Your task to perform on an android device: Open Google Chrome and click the shortcut for Amazon.com Image 0: 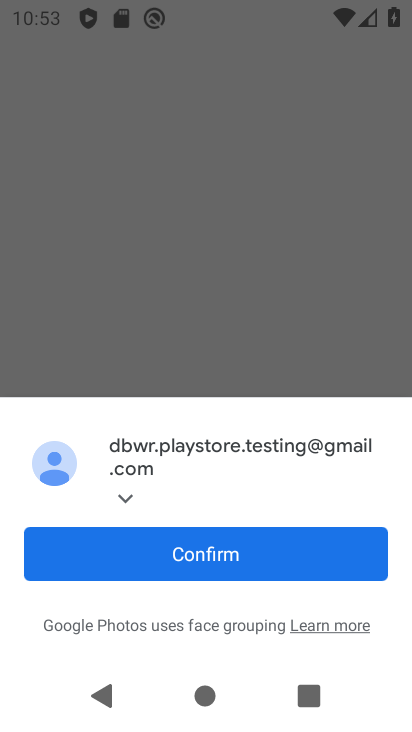
Step 0: press home button
Your task to perform on an android device: Open Google Chrome and click the shortcut for Amazon.com Image 1: 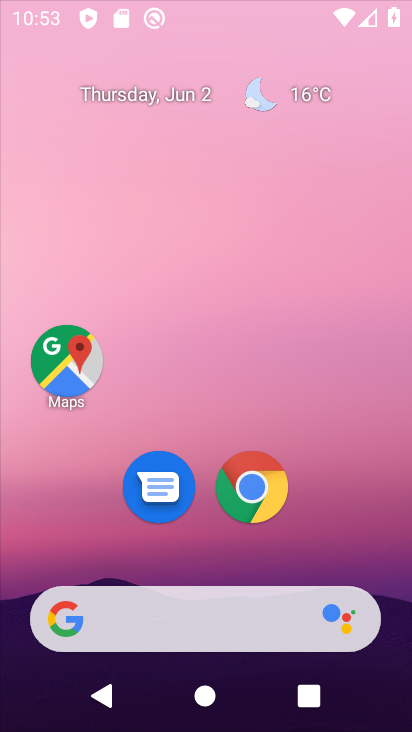
Step 1: press home button
Your task to perform on an android device: Open Google Chrome and click the shortcut for Amazon.com Image 2: 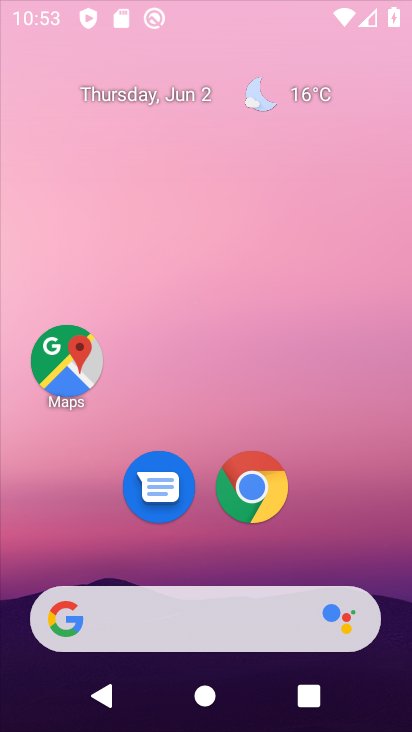
Step 2: click (238, 504)
Your task to perform on an android device: Open Google Chrome and click the shortcut for Amazon.com Image 3: 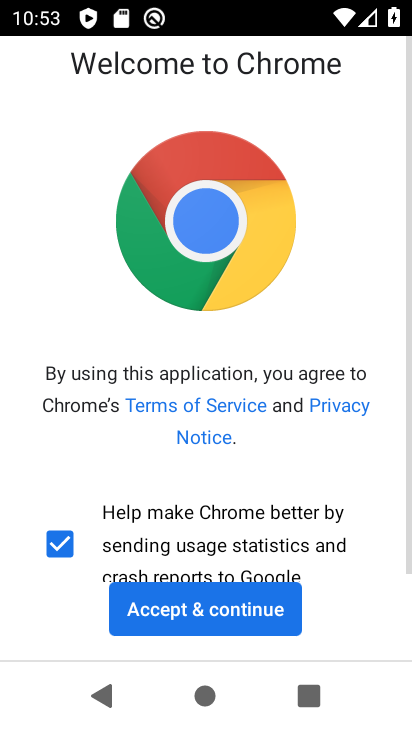
Step 3: click (251, 631)
Your task to perform on an android device: Open Google Chrome and click the shortcut for Amazon.com Image 4: 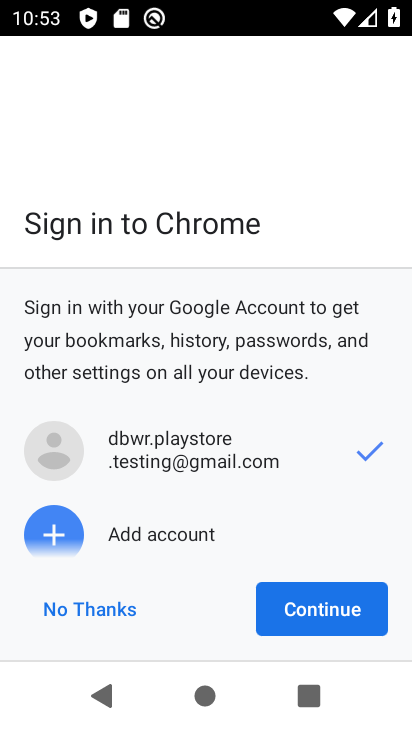
Step 4: click (294, 612)
Your task to perform on an android device: Open Google Chrome and click the shortcut for Amazon.com Image 5: 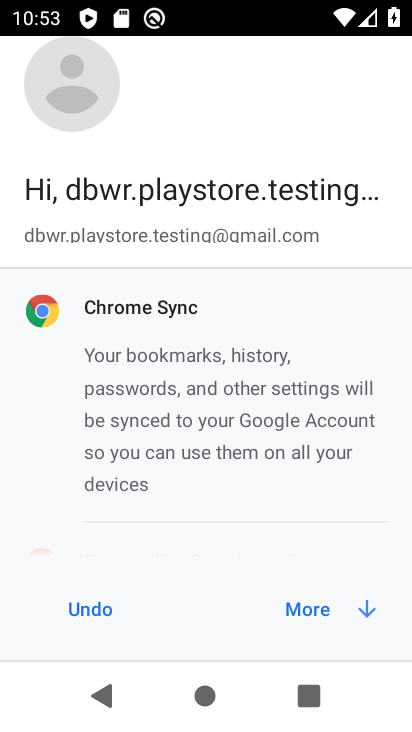
Step 5: click (298, 612)
Your task to perform on an android device: Open Google Chrome and click the shortcut for Amazon.com Image 6: 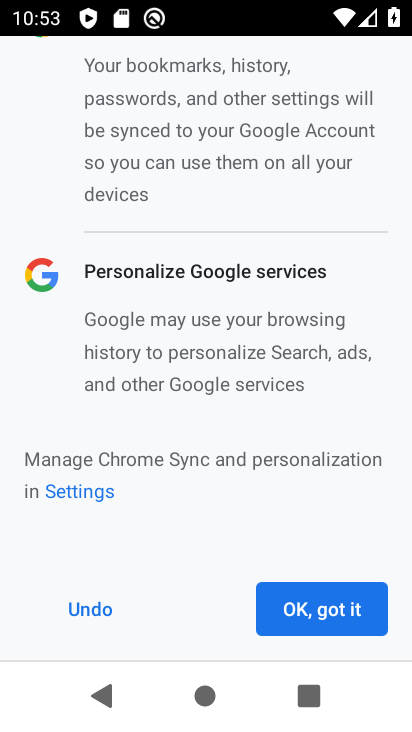
Step 6: click (298, 612)
Your task to perform on an android device: Open Google Chrome and click the shortcut for Amazon.com Image 7: 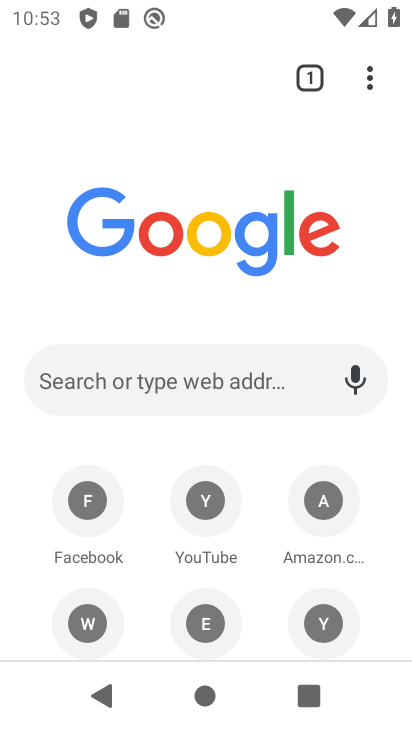
Step 7: click (311, 497)
Your task to perform on an android device: Open Google Chrome and click the shortcut for Amazon.com Image 8: 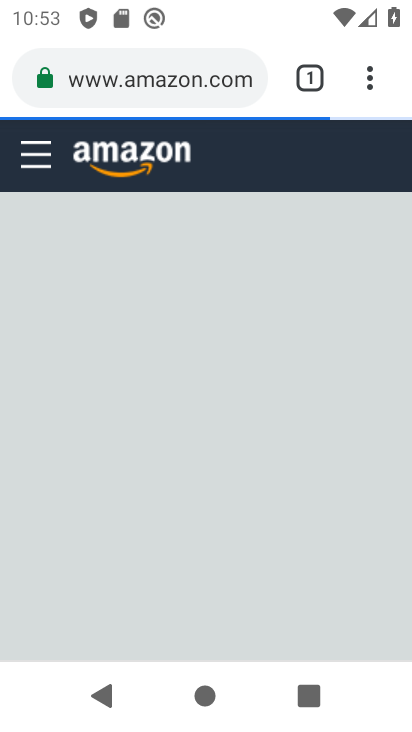
Step 8: task complete